Your task to perform on an android device: delete a single message in the gmail app Image 0: 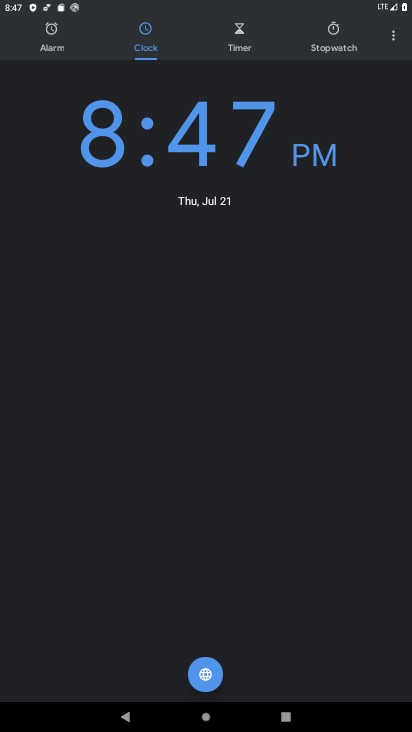
Step 0: press home button
Your task to perform on an android device: delete a single message in the gmail app Image 1: 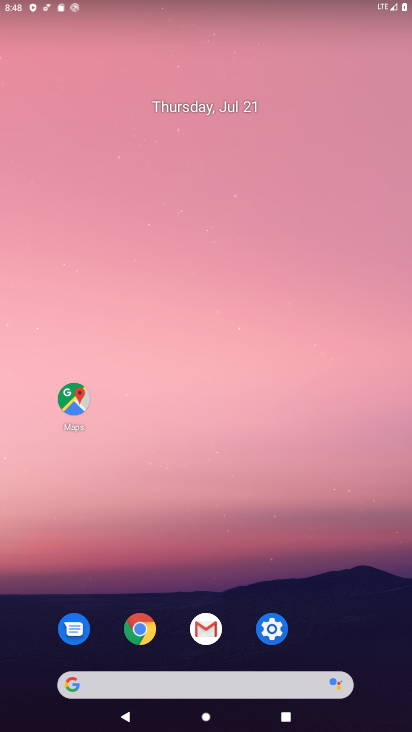
Step 1: click (208, 629)
Your task to perform on an android device: delete a single message in the gmail app Image 2: 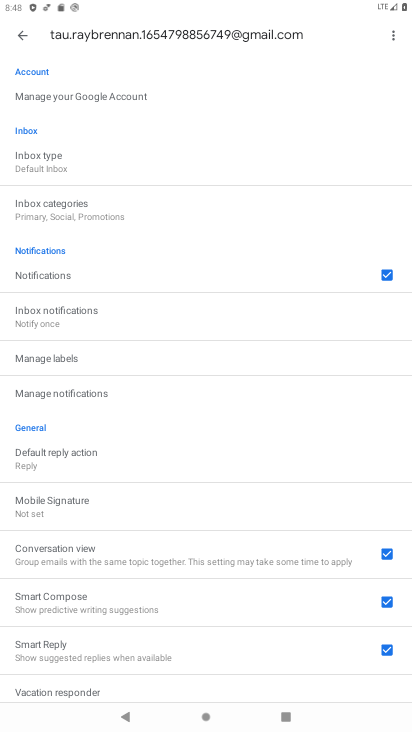
Step 2: click (21, 37)
Your task to perform on an android device: delete a single message in the gmail app Image 3: 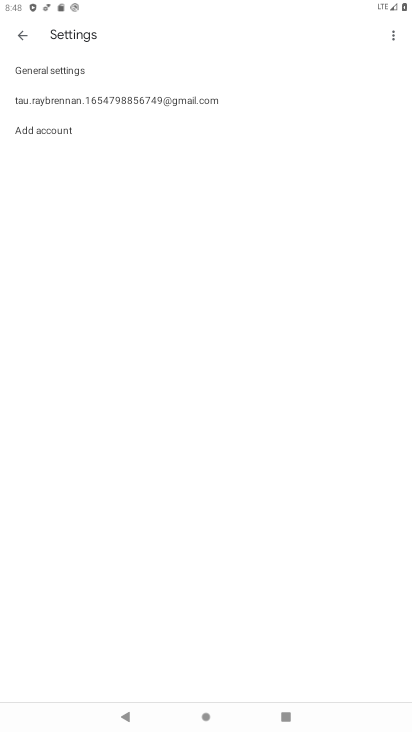
Step 3: click (19, 36)
Your task to perform on an android device: delete a single message in the gmail app Image 4: 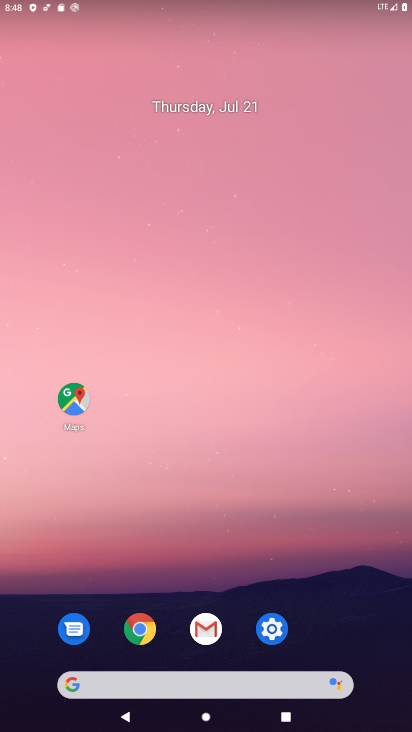
Step 4: click (205, 627)
Your task to perform on an android device: delete a single message in the gmail app Image 5: 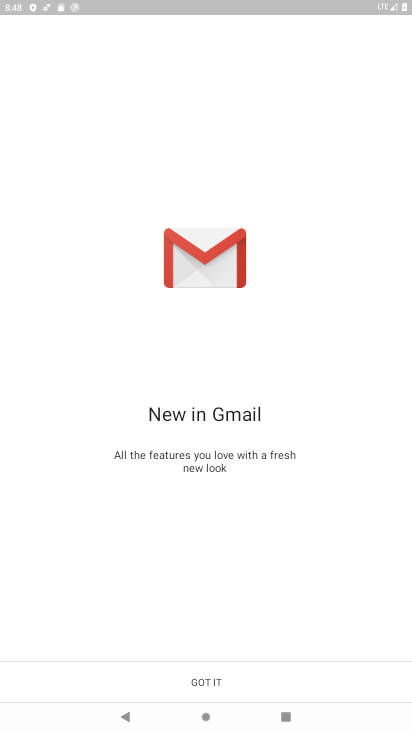
Step 5: click (193, 680)
Your task to perform on an android device: delete a single message in the gmail app Image 6: 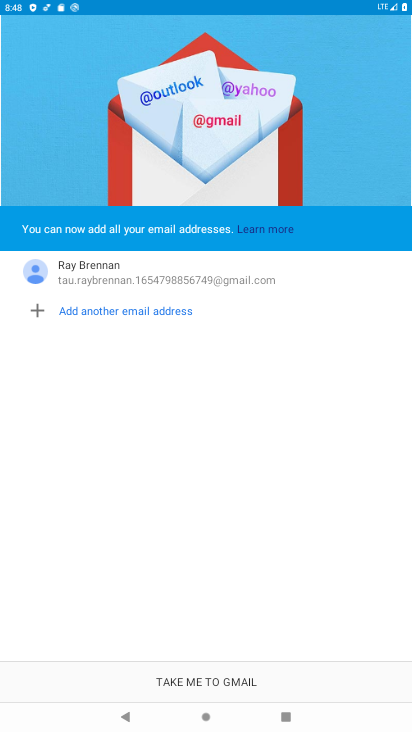
Step 6: click (203, 680)
Your task to perform on an android device: delete a single message in the gmail app Image 7: 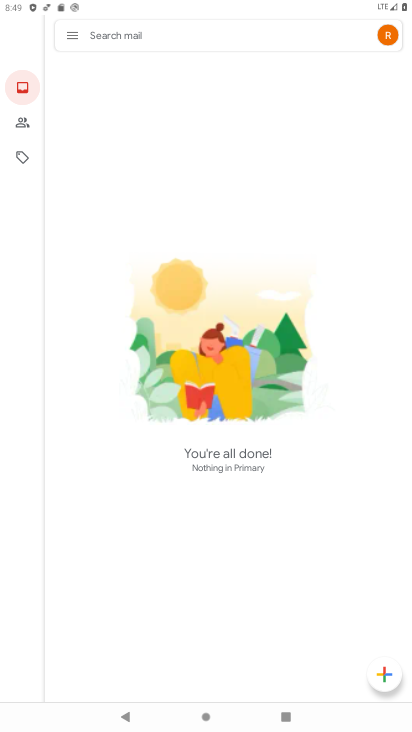
Step 7: task complete